Your task to perform on an android device: change keyboard looks Image 0: 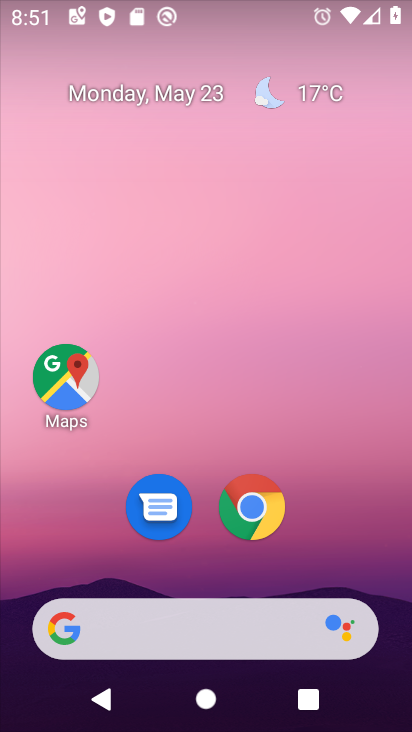
Step 0: drag from (337, 590) to (338, 4)
Your task to perform on an android device: change keyboard looks Image 1: 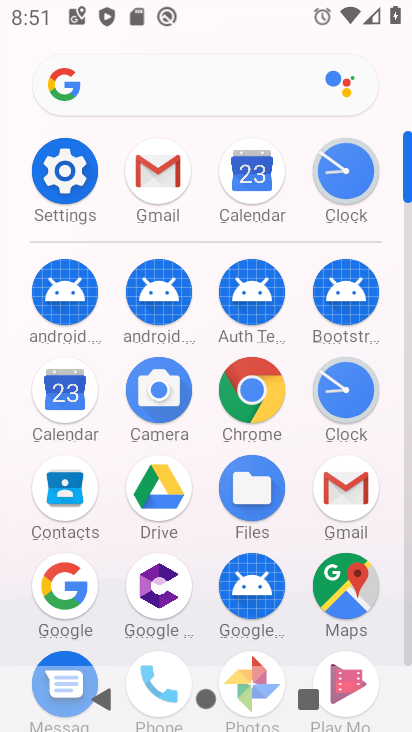
Step 1: click (62, 169)
Your task to perform on an android device: change keyboard looks Image 2: 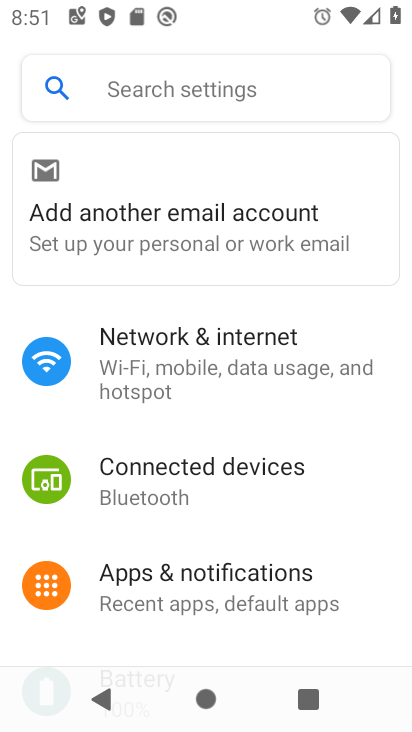
Step 2: drag from (267, 557) to (217, 92)
Your task to perform on an android device: change keyboard looks Image 3: 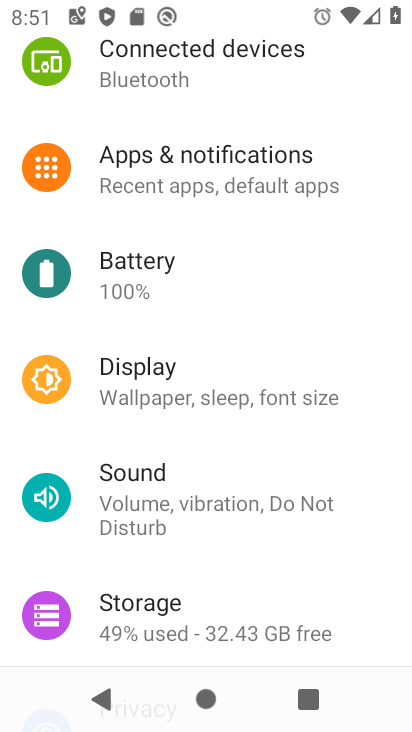
Step 3: drag from (206, 459) to (198, 68)
Your task to perform on an android device: change keyboard looks Image 4: 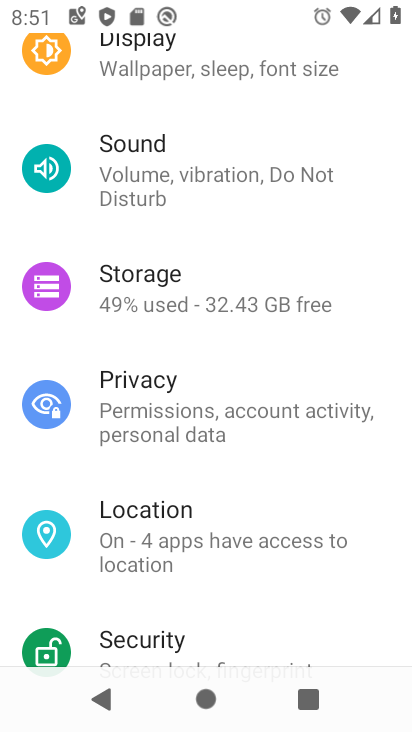
Step 4: drag from (224, 546) to (237, 85)
Your task to perform on an android device: change keyboard looks Image 5: 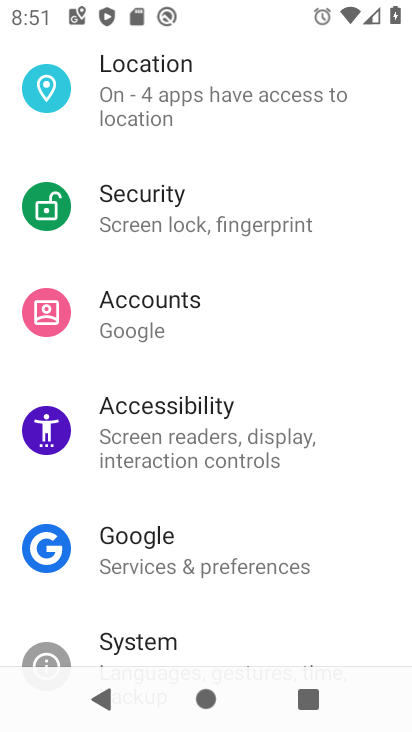
Step 5: drag from (224, 554) to (228, 71)
Your task to perform on an android device: change keyboard looks Image 6: 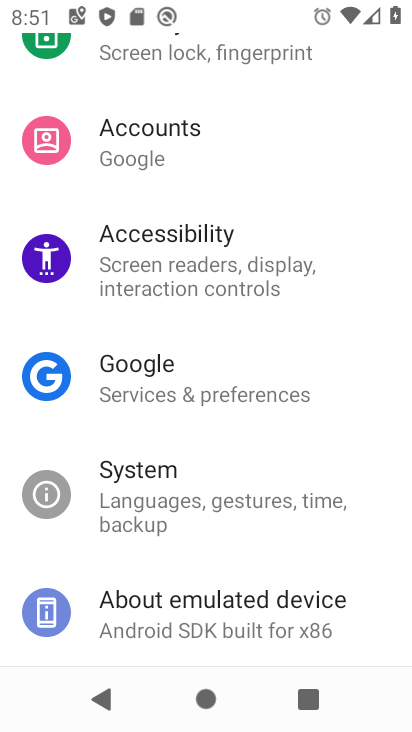
Step 6: click (140, 510)
Your task to perform on an android device: change keyboard looks Image 7: 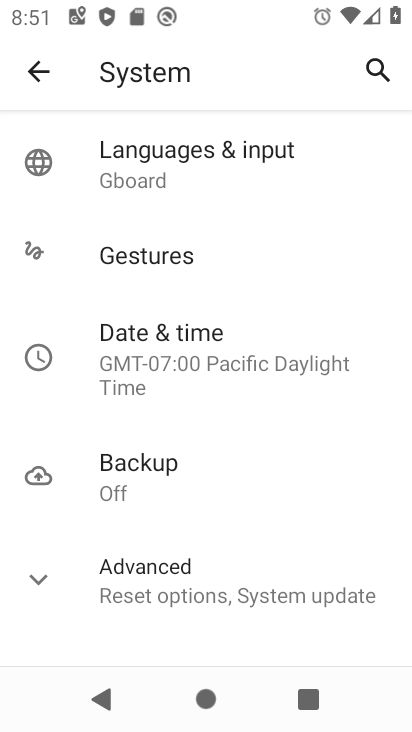
Step 7: drag from (234, 541) to (235, 411)
Your task to perform on an android device: change keyboard looks Image 8: 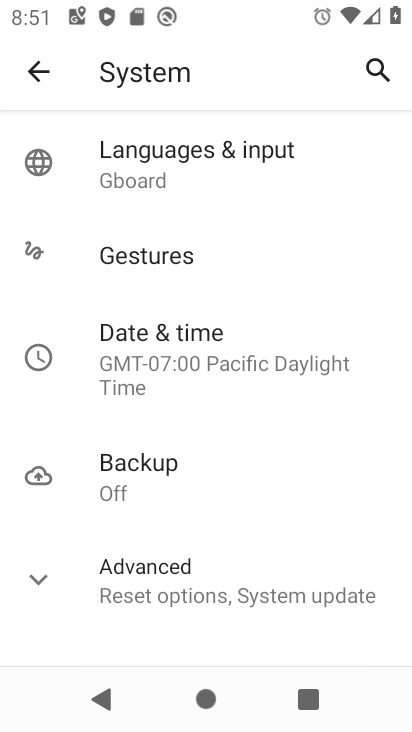
Step 8: click (139, 172)
Your task to perform on an android device: change keyboard looks Image 9: 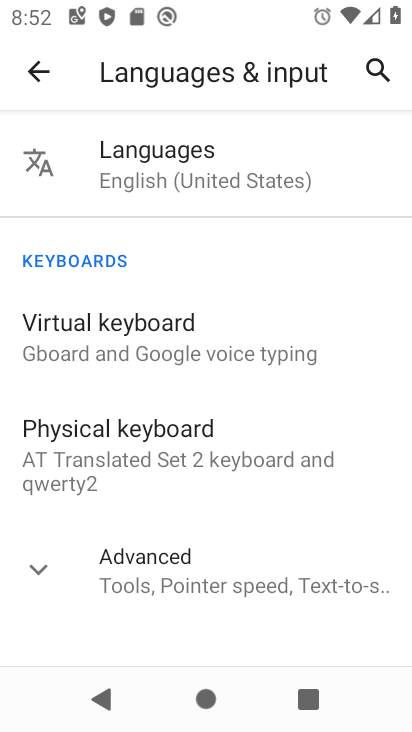
Step 9: click (100, 349)
Your task to perform on an android device: change keyboard looks Image 10: 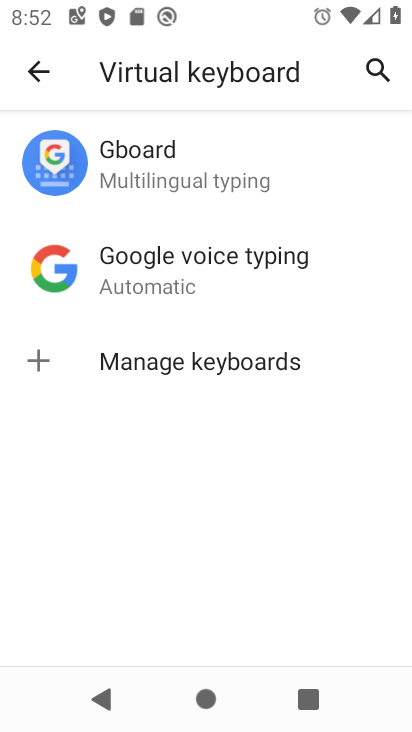
Step 10: click (94, 170)
Your task to perform on an android device: change keyboard looks Image 11: 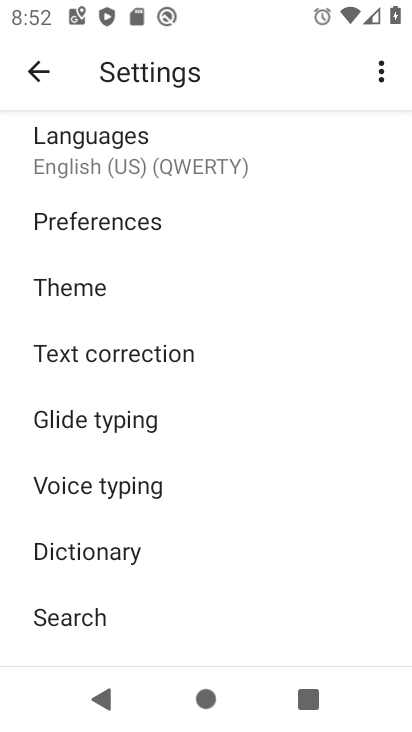
Step 11: click (56, 290)
Your task to perform on an android device: change keyboard looks Image 12: 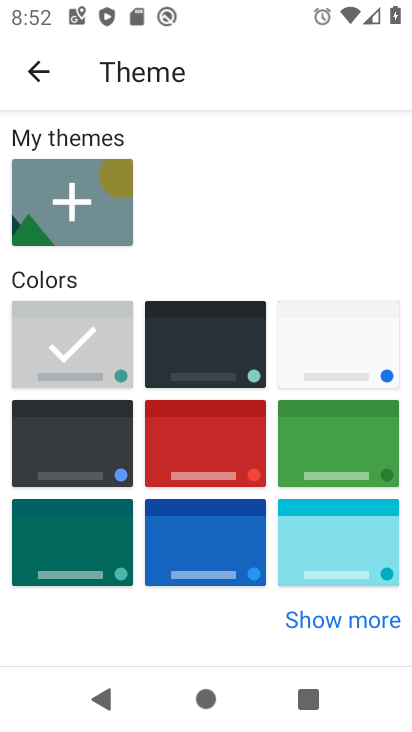
Step 12: click (181, 461)
Your task to perform on an android device: change keyboard looks Image 13: 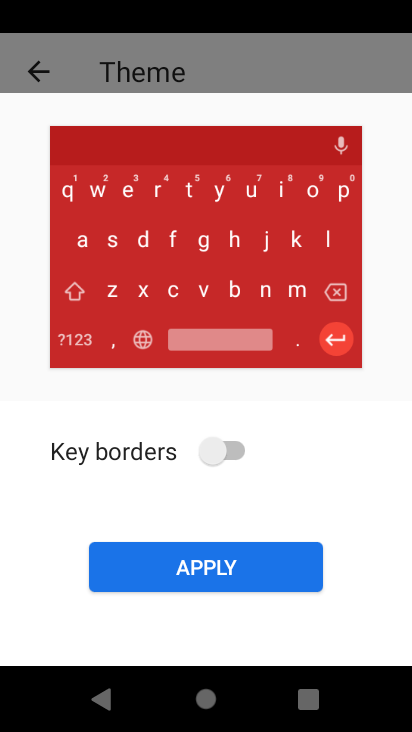
Step 13: click (218, 441)
Your task to perform on an android device: change keyboard looks Image 14: 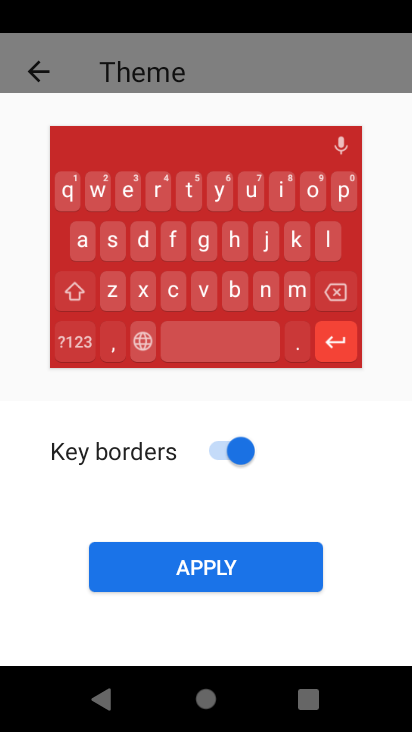
Step 14: click (188, 585)
Your task to perform on an android device: change keyboard looks Image 15: 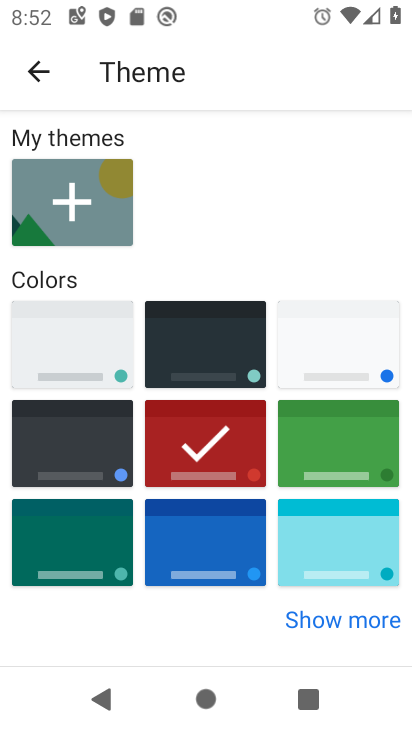
Step 15: task complete